Your task to perform on an android device: turn vacation reply on in the gmail app Image 0: 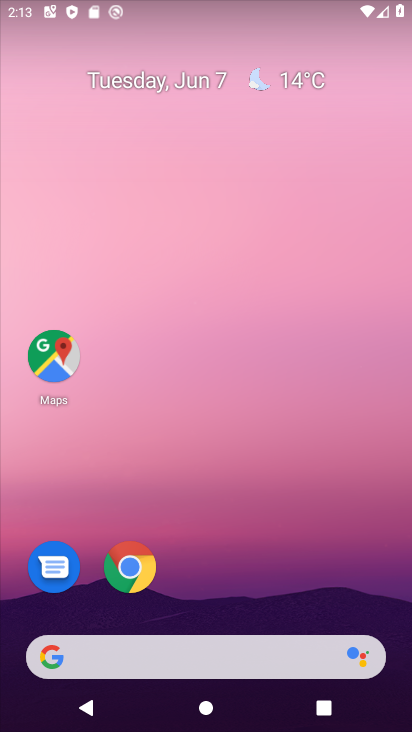
Step 0: drag from (251, 580) to (260, 242)
Your task to perform on an android device: turn vacation reply on in the gmail app Image 1: 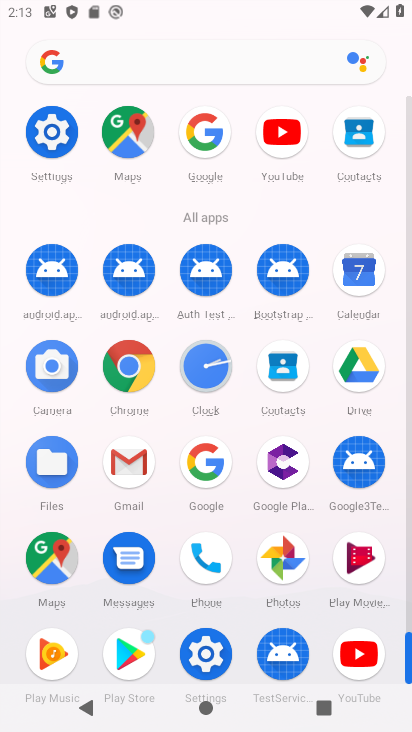
Step 1: click (121, 463)
Your task to perform on an android device: turn vacation reply on in the gmail app Image 2: 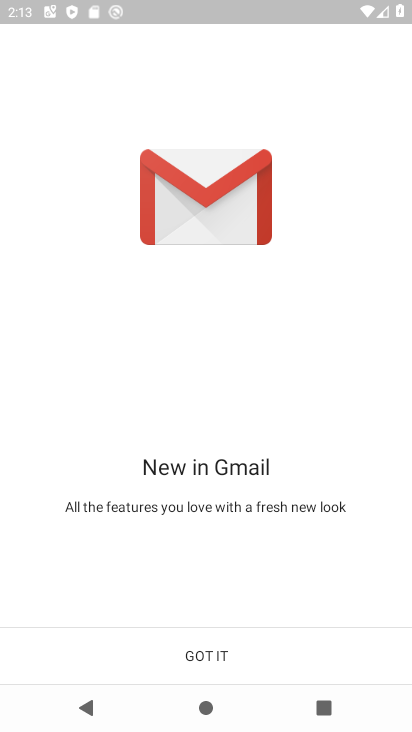
Step 2: click (206, 673)
Your task to perform on an android device: turn vacation reply on in the gmail app Image 3: 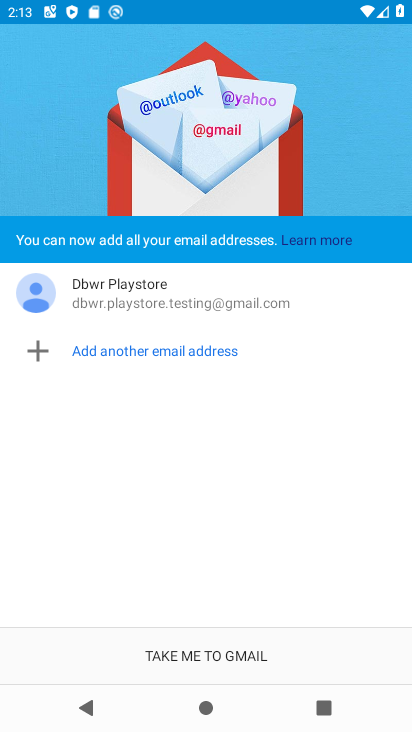
Step 3: click (197, 648)
Your task to perform on an android device: turn vacation reply on in the gmail app Image 4: 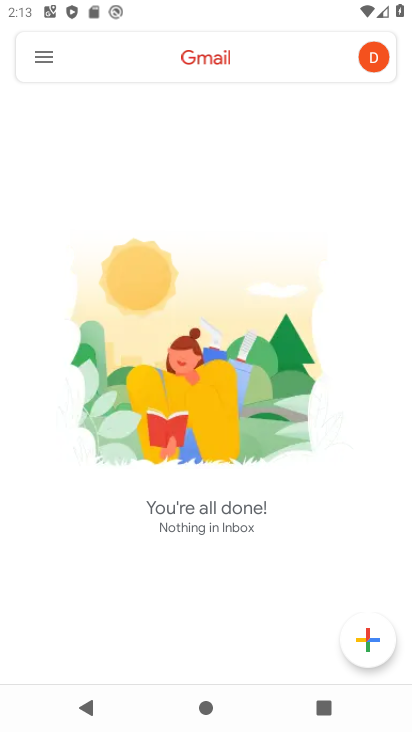
Step 4: click (40, 60)
Your task to perform on an android device: turn vacation reply on in the gmail app Image 5: 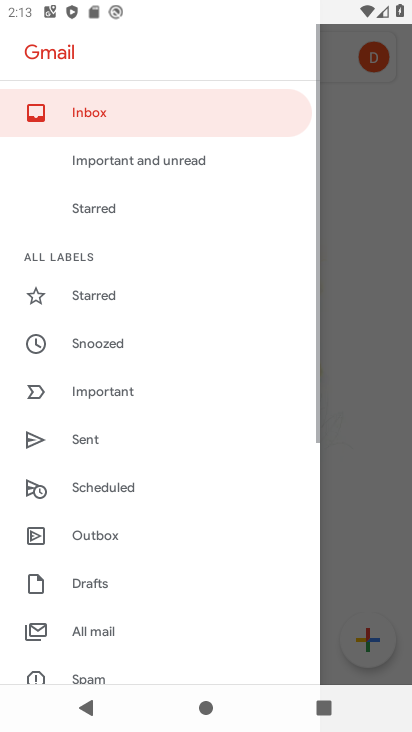
Step 5: drag from (134, 566) to (178, 307)
Your task to perform on an android device: turn vacation reply on in the gmail app Image 6: 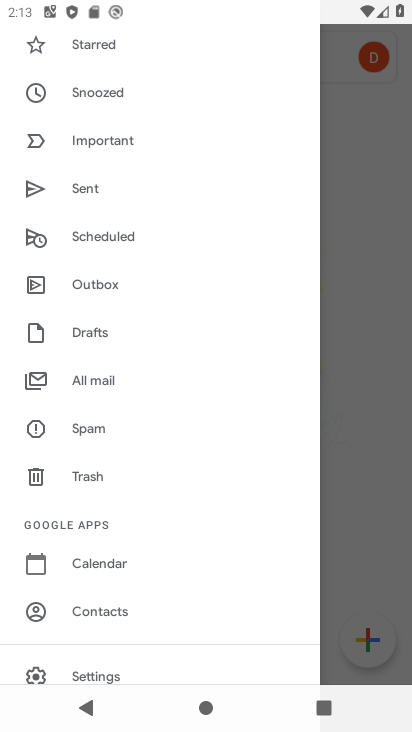
Step 6: drag from (134, 572) to (140, 334)
Your task to perform on an android device: turn vacation reply on in the gmail app Image 7: 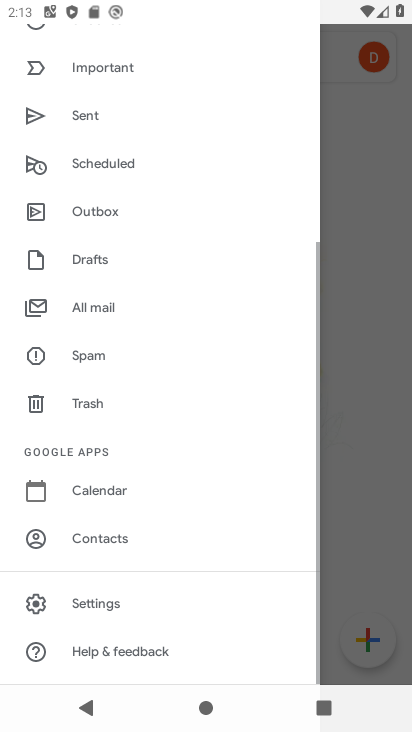
Step 7: click (108, 595)
Your task to perform on an android device: turn vacation reply on in the gmail app Image 8: 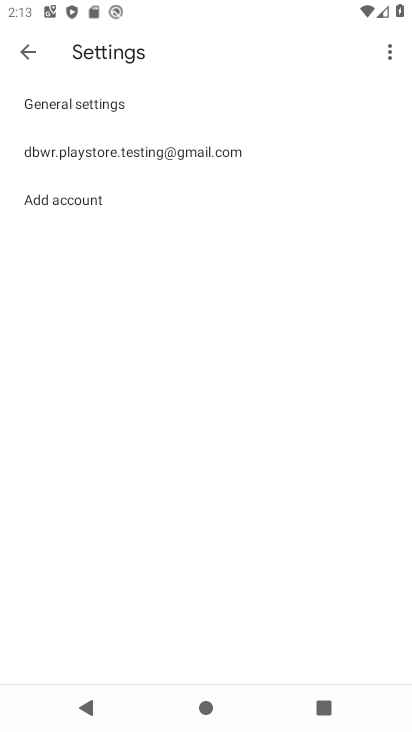
Step 8: click (155, 154)
Your task to perform on an android device: turn vacation reply on in the gmail app Image 9: 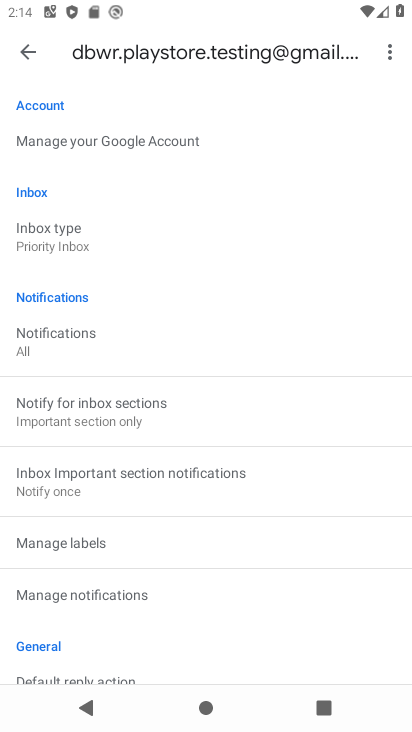
Step 9: drag from (144, 591) to (149, 262)
Your task to perform on an android device: turn vacation reply on in the gmail app Image 10: 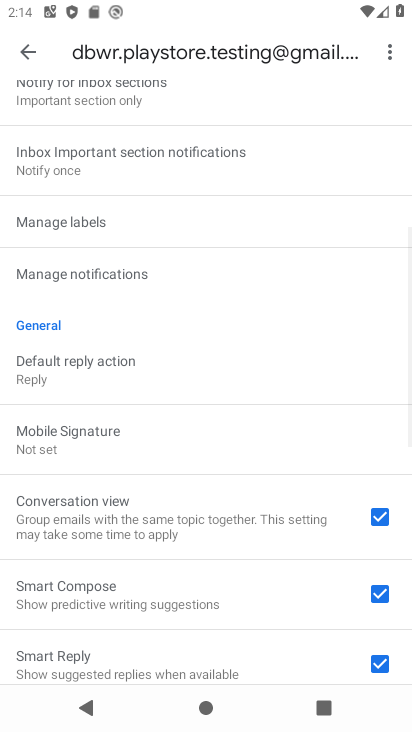
Step 10: drag from (124, 499) to (145, 268)
Your task to perform on an android device: turn vacation reply on in the gmail app Image 11: 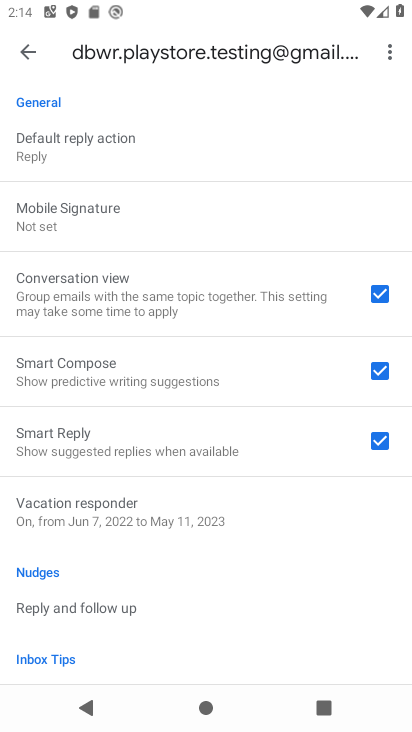
Step 11: drag from (318, 583) to (292, 261)
Your task to perform on an android device: turn vacation reply on in the gmail app Image 12: 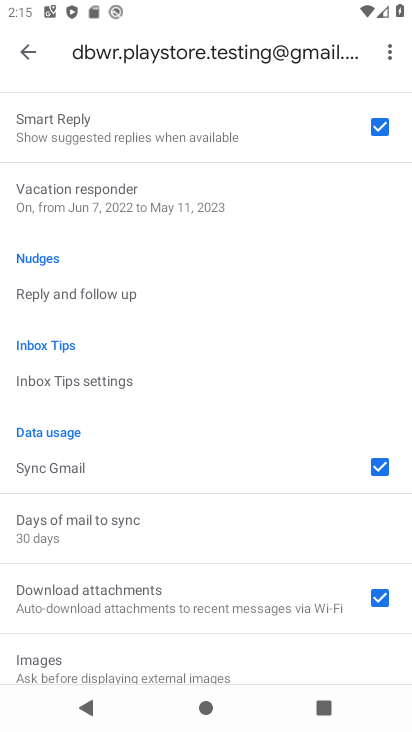
Step 12: click (212, 200)
Your task to perform on an android device: turn vacation reply on in the gmail app Image 13: 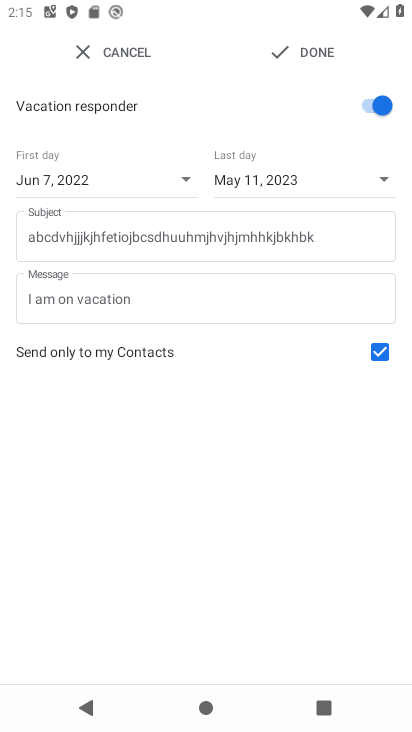
Step 13: task complete